Your task to perform on an android device: Open the phone app and click the voicemail tab. Image 0: 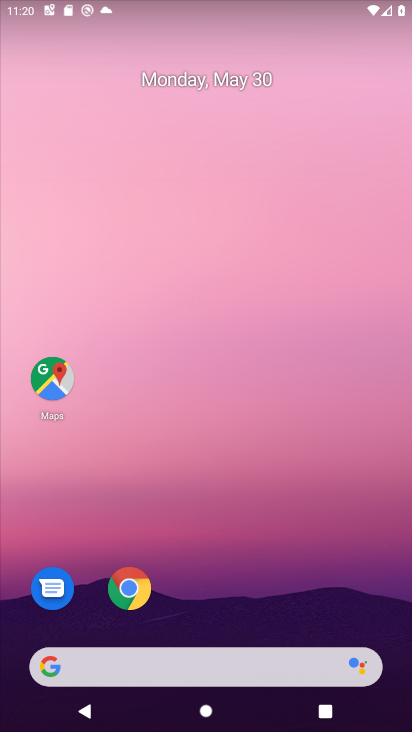
Step 0: drag from (243, 659) to (343, 0)
Your task to perform on an android device: Open the phone app and click the voicemail tab. Image 1: 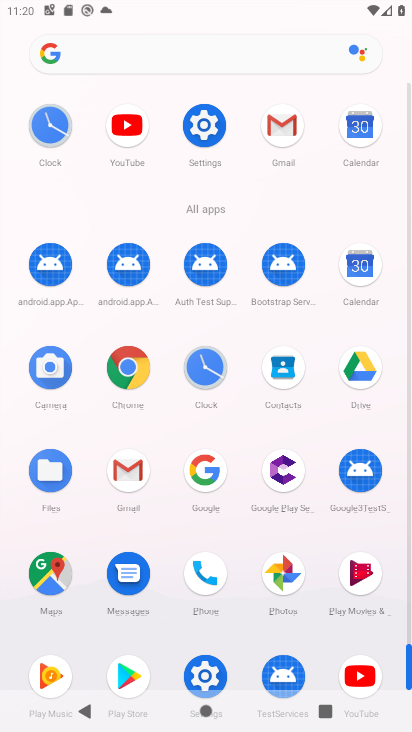
Step 1: click (202, 590)
Your task to perform on an android device: Open the phone app and click the voicemail tab. Image 2: 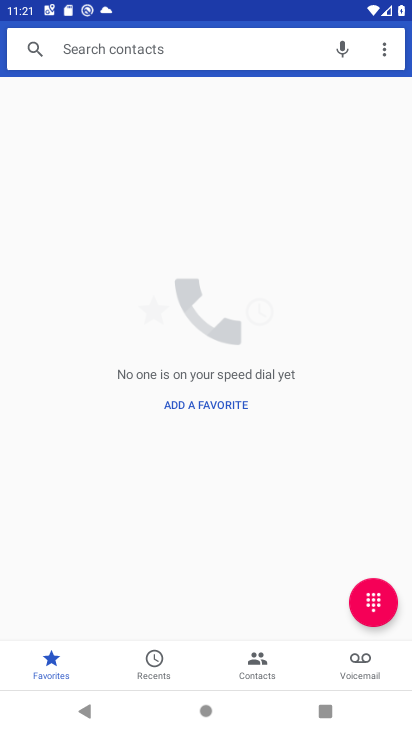
Step 2: click (358, 662)
Your task to perform on an android device: Open the phone app and click the voicemail tab. Image 3: 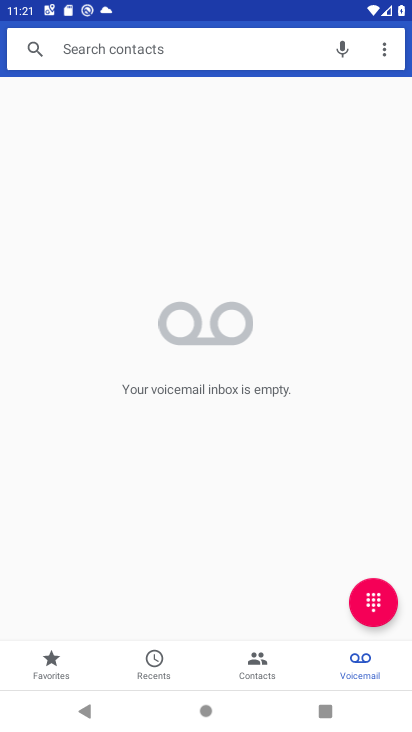
Step 3: task complete